Your task to perform on an android device: toggle translation in the chrome app Image 0: 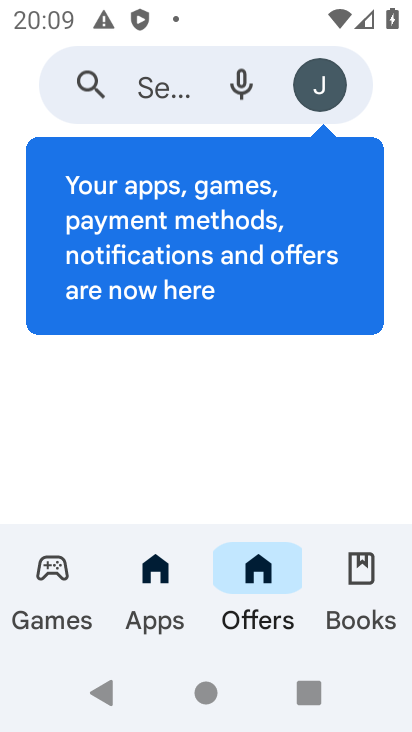
Step 0: press home button
Your task to perform on an android device: toggle translation in the chrome app Image 1: 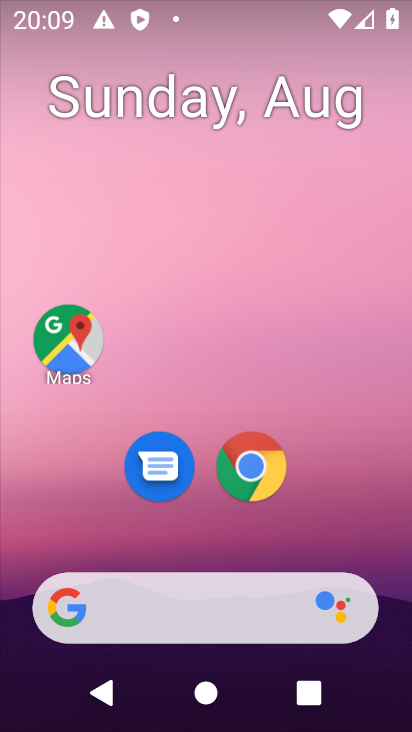
Step 1: drag from (341, 519) to (303, 146)
Your task to perform on an android device: toggle translation in the chrome app Image 2: 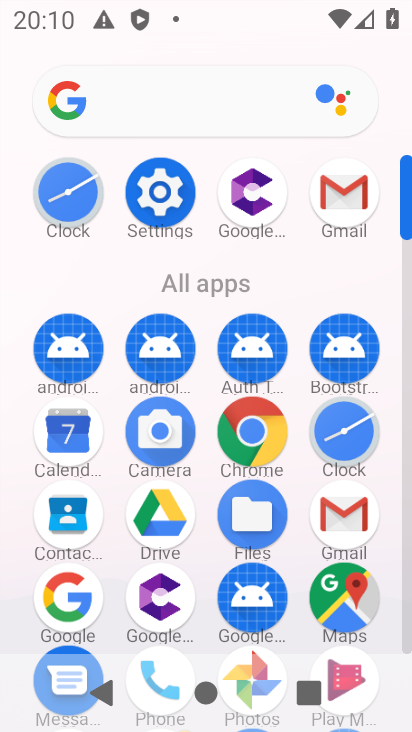
Step 2: click (248, 423)
Your task to perform on an android device: toggle translation in the chrome app Image 3: 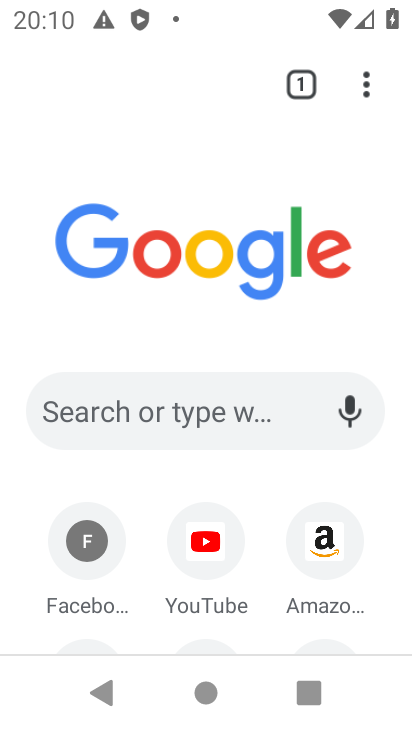
Step 3: click (369, 84)
Your task to perform on an android device: toggle translation in the chrome app Image 4: 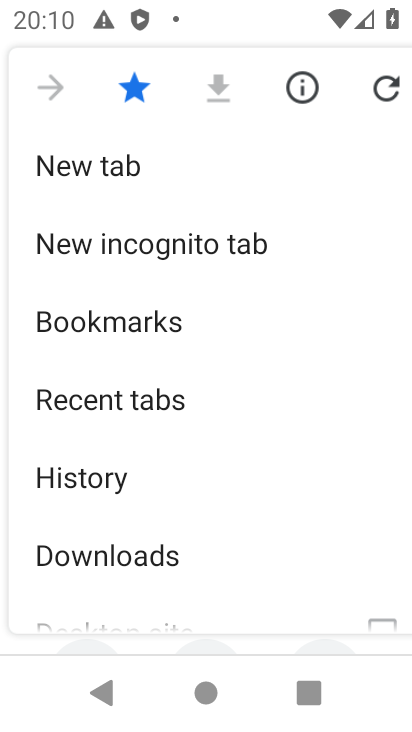
Step 4: drag from (309, 573) to (277, 255)
Your task to perform on an android device: toggle translation in the chrome app Image 5: 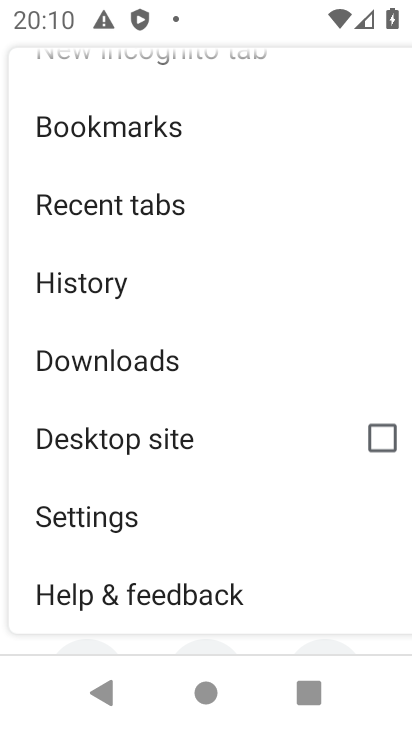
Step 5: click (107, 531)
Your task to perform on an android device: toggle translation in the chrome app Image 6: 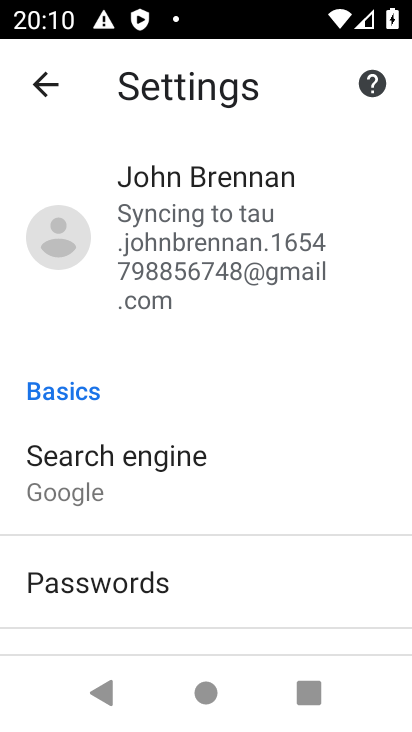
Step 6: drag from (180, 523) to (154, 188)
Your task to perform on an android device: toggle translation in the chrome app Image 7: 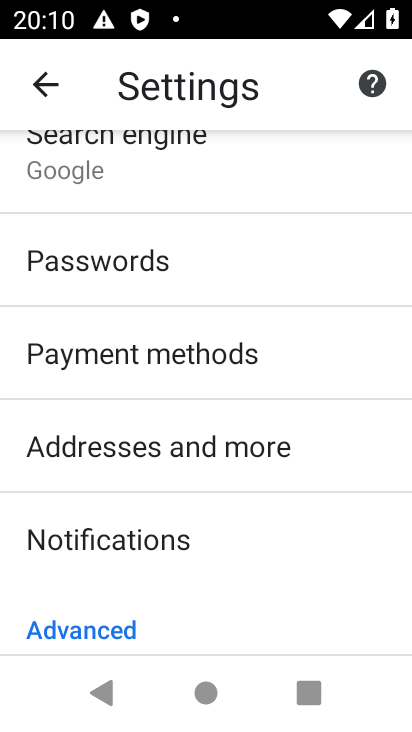
Step 7: drag from (268, 574) to (235, 190)
Your task to perform on an android device: toggle translation in the chrome app Image 8: 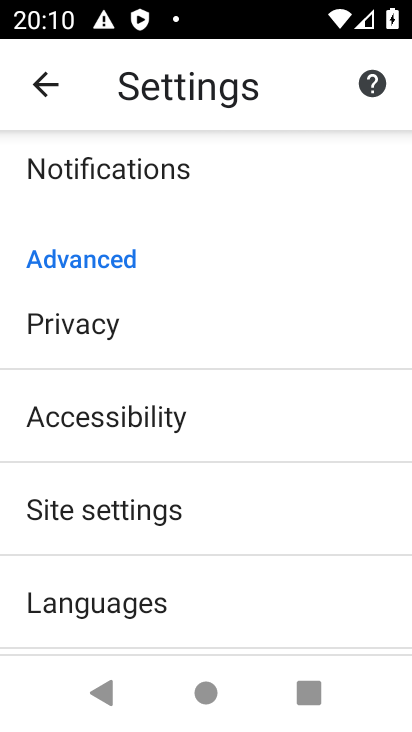
Step 8: drag from (301, 592) to (247, 163)
Your task to perform on an android device: toggle translation in the chrome app Image 9: 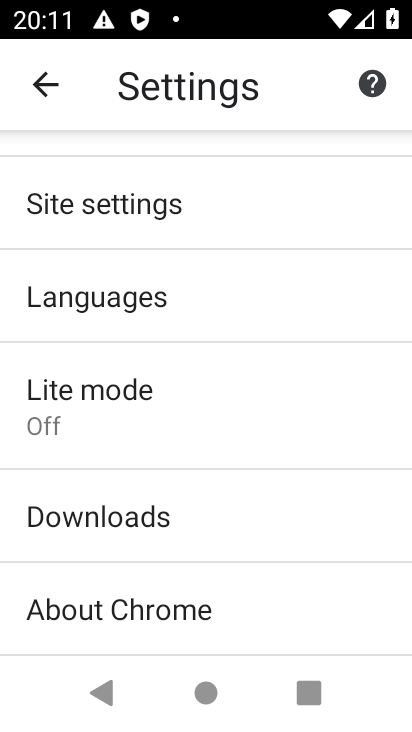
Step 9: click (171, 315)
Your task to perform on an android device: toggle translation in the chrome app Image 10: 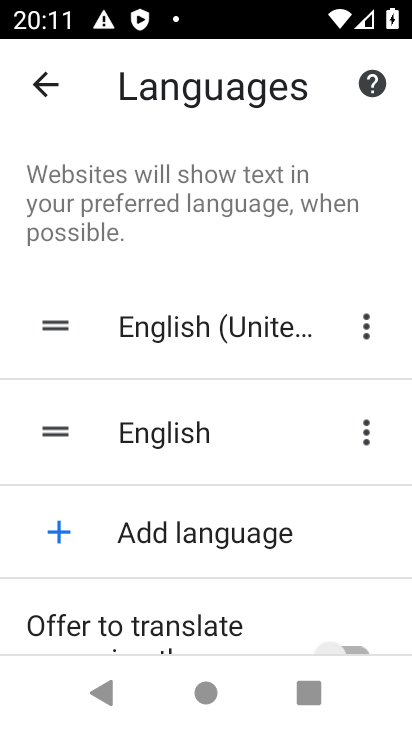
Step 10: click (286, 629)
Your task to perform on an android device: toggle translation in the chrome app Image 11: 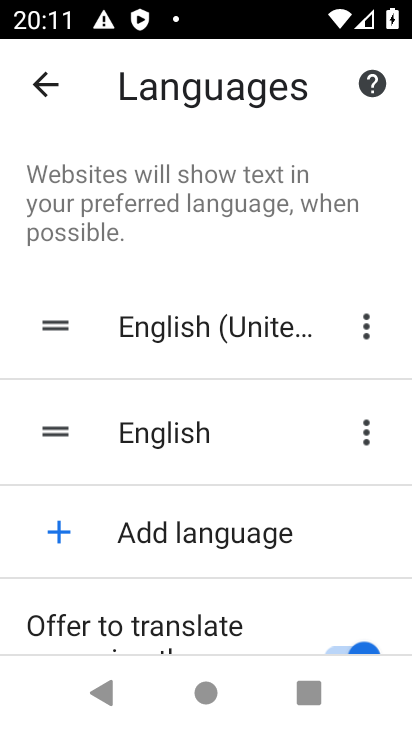
Step 11: task complete